Your task to perform on an android device: turn on improve location accuracy Image 0: 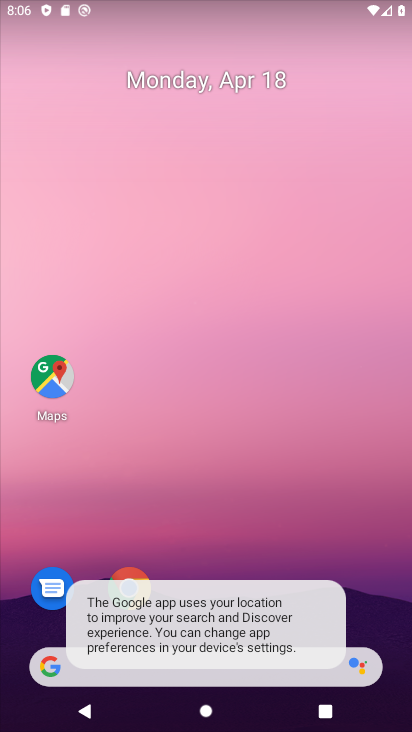
Step 0: drag from (381, 624) to (361, 168)
Your task to perform on an android device: turn on improve location accuracy Image 1: 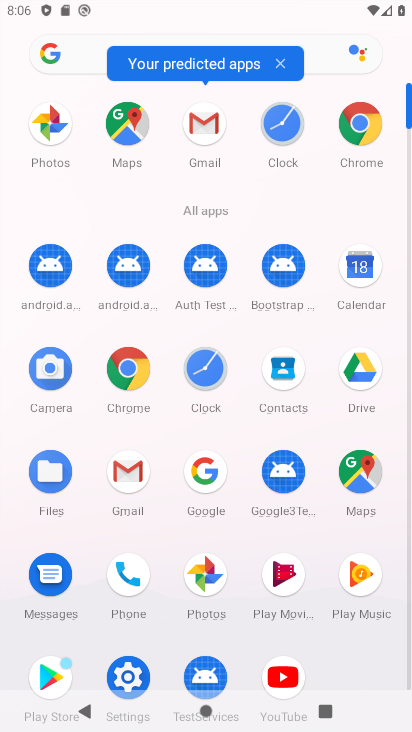
Step 1: click (407, 673)
Your task to perform on an android device: turn on improve location accuracy Image 2: 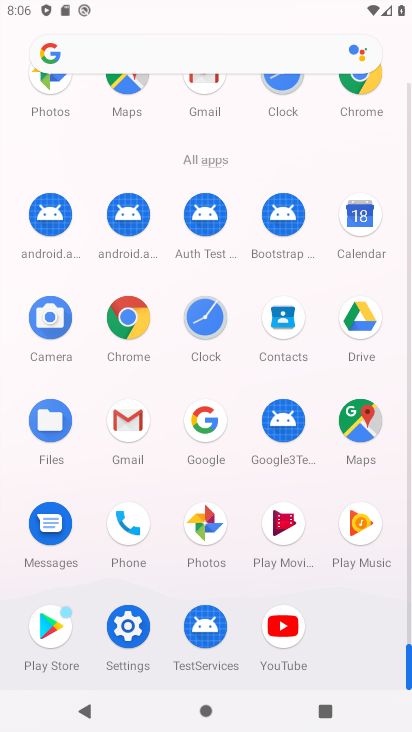
Step 2: click (124, 624)
Your task to perform on an android device: turn on improve location accuracy Image 3: 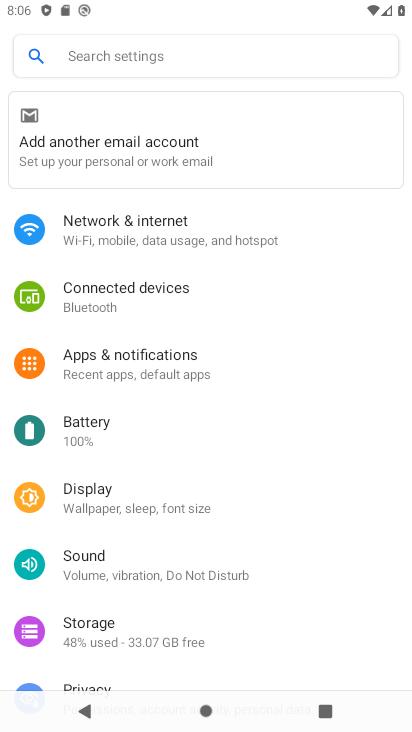
Step 3: drag from (325, 656) to (345, 376)
Your task to perform on an android device: turn on improve location accuracy Image 4: 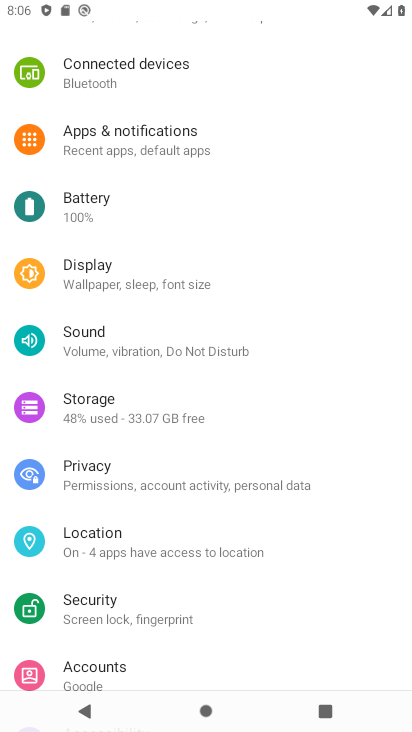
Step 4: click (91, 535)
Your task to perform on an android device: turn on improve location accuracy Image 5: 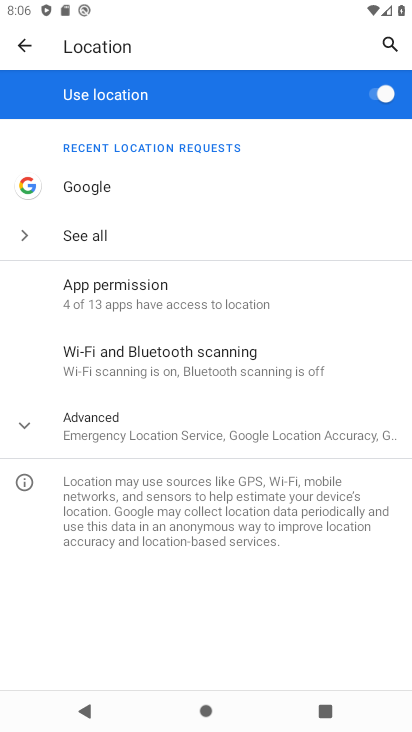
Step 5: click (24, 423)
Your task to perform on an android device: turn on improve location accuracy Image 6: 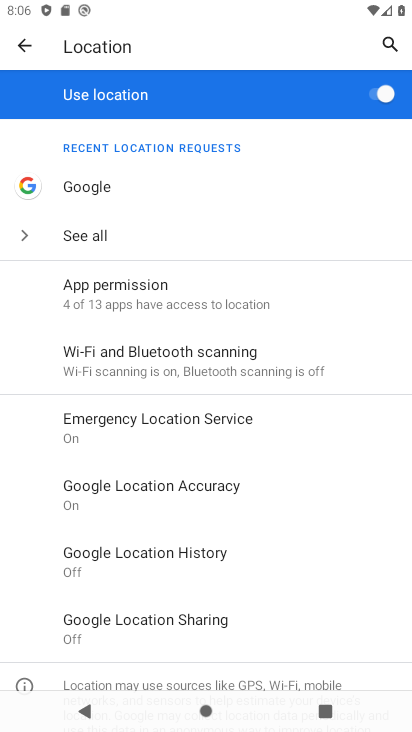
Step 6: click (101, 488)
Your task to perform on an android device: turn on improve location accuracy Image 7: 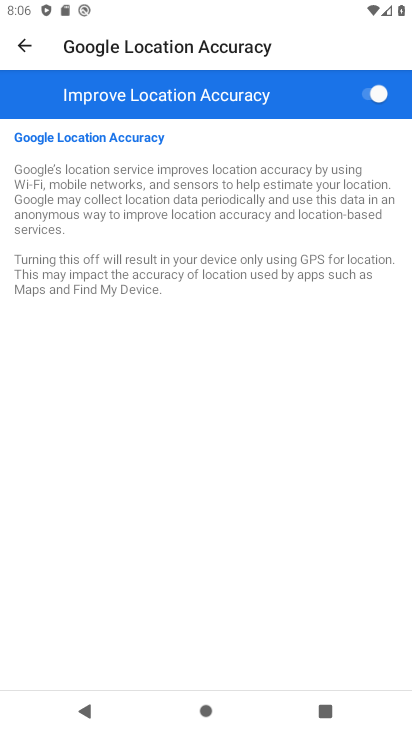
Step 7: task complete